Your task to perform on an android device: Is it going to rain tomorrow? Image 0: 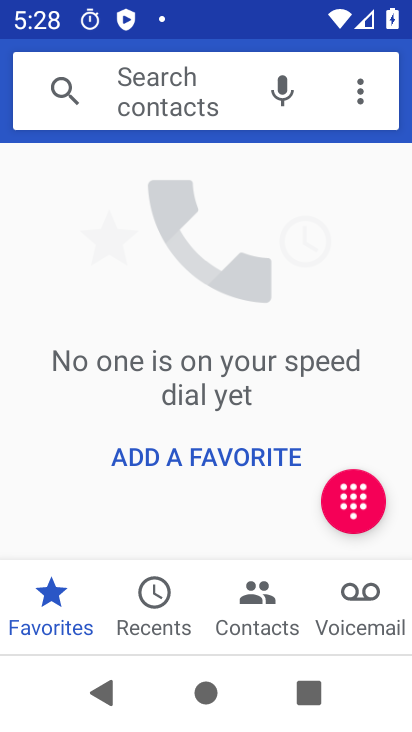
Step 0: press home button
Your task to perform on an android device: Is it going to rain tomorrow? Image 1: 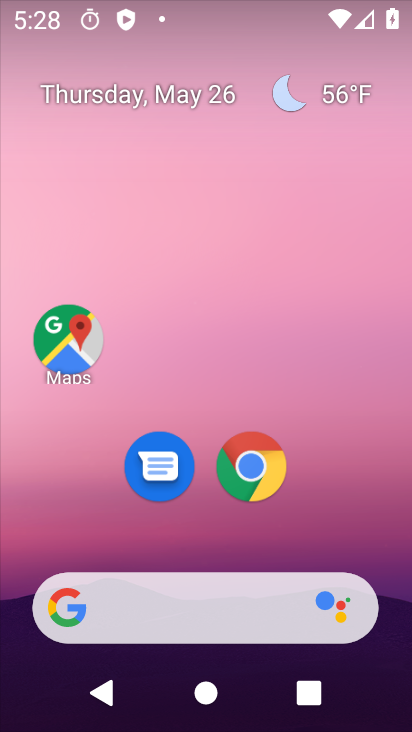
Step 1: drag from (327, 537) to (339, 99)
Your task to perform on an android device: Is it going to rain tomorrow? Image 2: 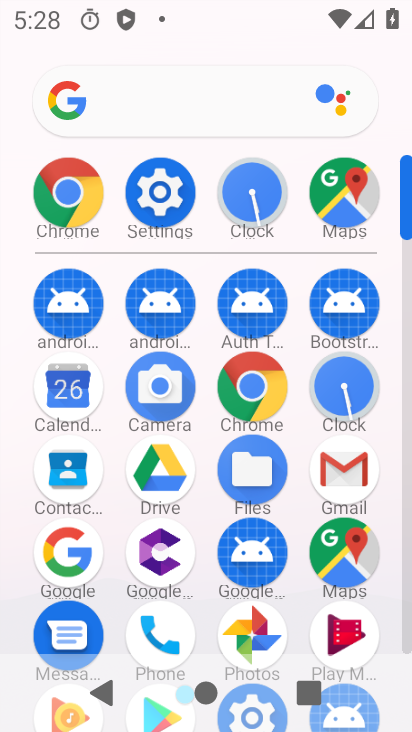
Step 2: click (249, 381)
Your task to perform on an android device: Is it going to rain tomorrow? Image 3: 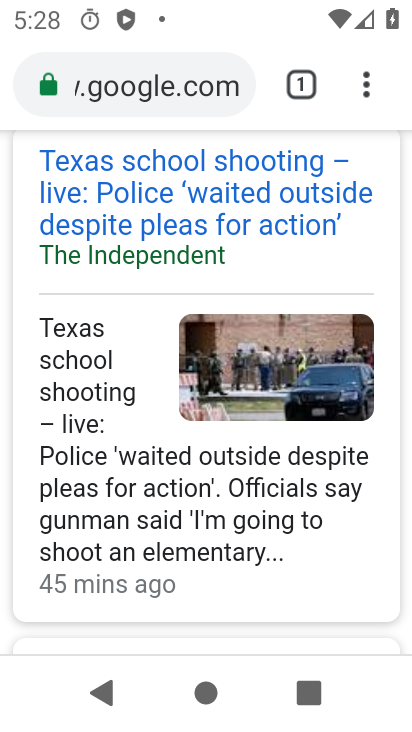
Step 3: click (189, 82)
Your task to perform on an android device: Is it going to rain tomorrow? Image 4: 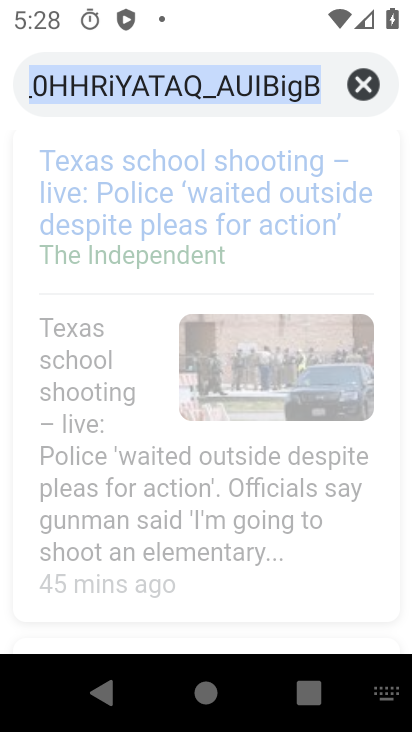
Step 4: click (364, 75)
Your task to perform on an android device: Is it going to rain tomorrow? Image 5: 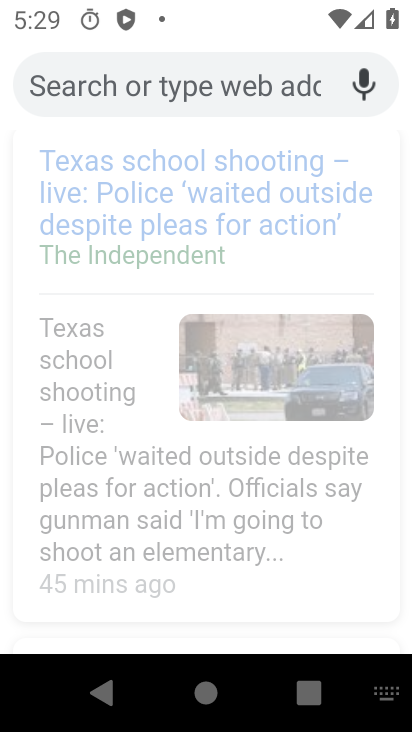
Step 5: type "Is it going to rain tomorrow?"
Your task to perform on an android device: Is it going to rain tomorrow? Image 6: 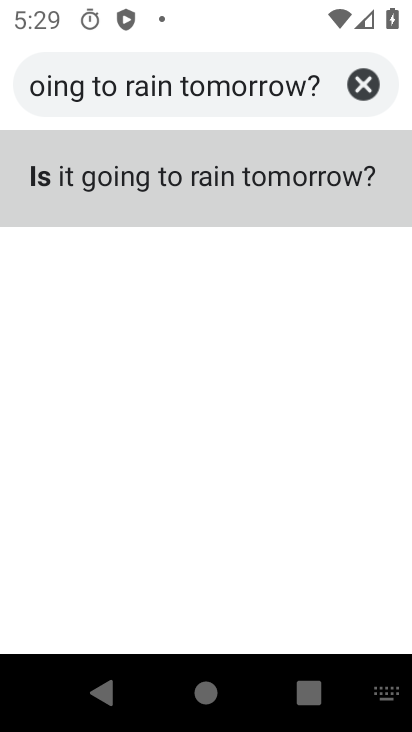
Step 6: click (301, 165)
Your task to perform on an android device: Is it going to rain tomorrow? Image 7: 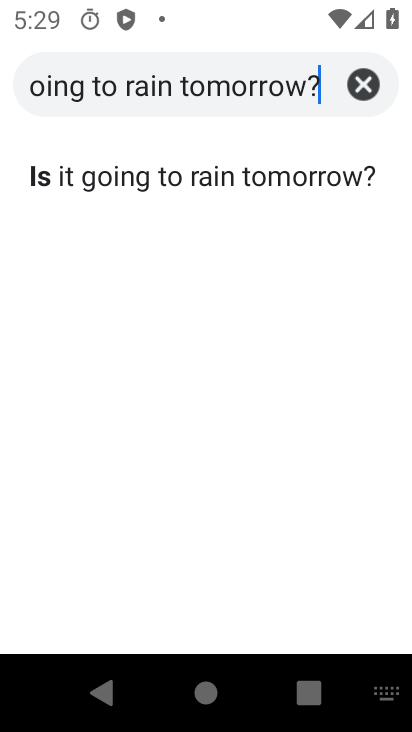
Step 7: click (346, 172)
Your task to perform on an android device: Is it going to rain tomorrow? Image 8: 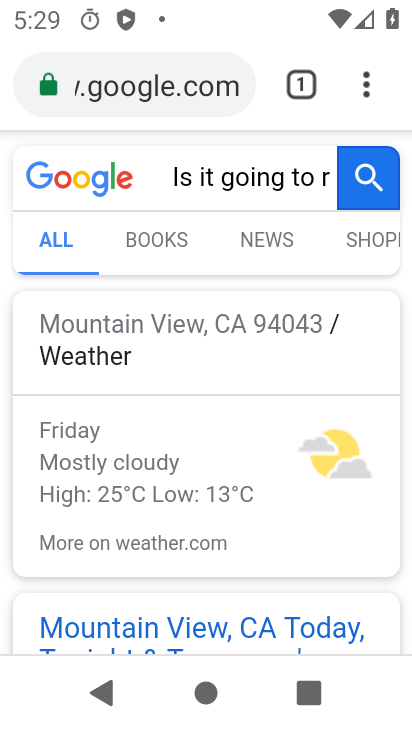
Step 8: task complete